Your task to perform on an android device: Open Google Maps and go to "Timeline" Image 0: 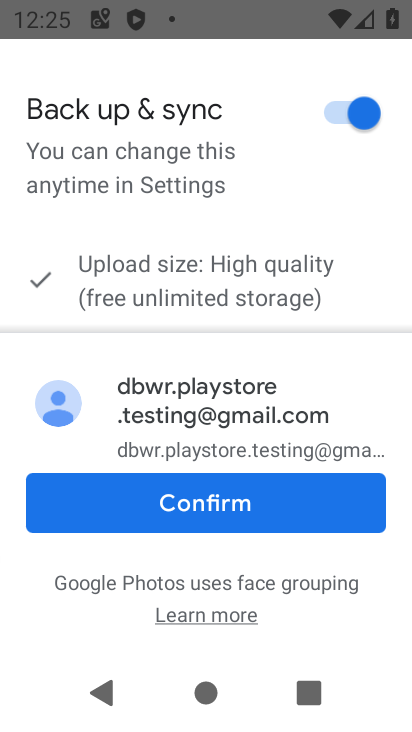
Step 0: press home button
Your task to perform on an android device: Open Google Maps and go to "Timeline" Image 1: 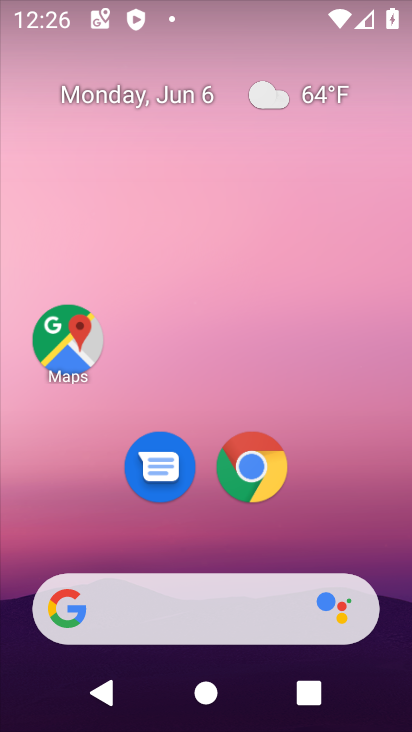
Step 1: click (67, 342)
Your task to perform on an android device: Open Google Maps and go to "Timeline" Image 2: 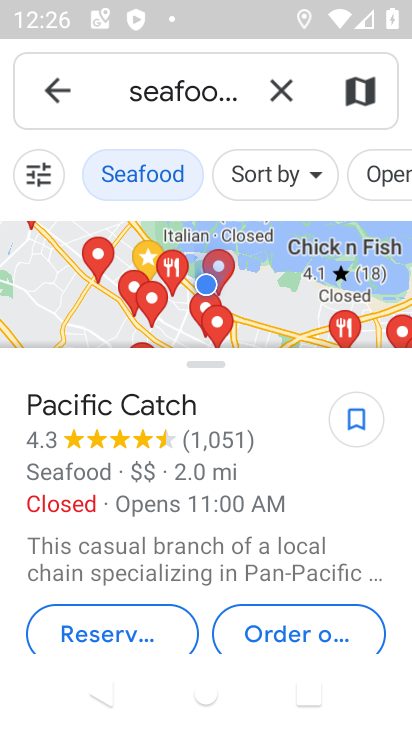
Step 2: click (275, 93)
Your task to perform on an android device: Open Google Maps and go to "Timeline" Image 3: 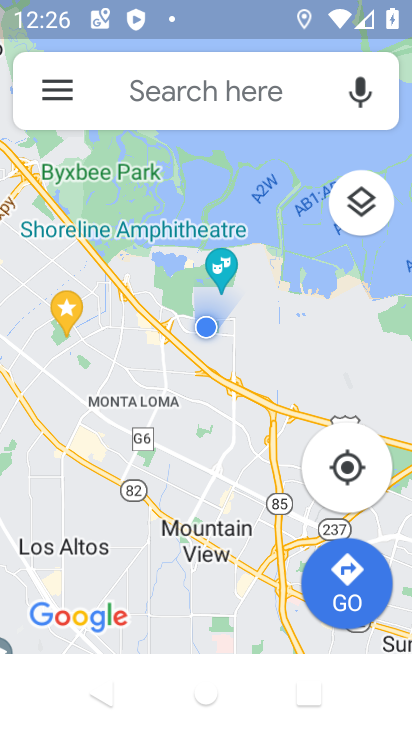
Step 3: click (55, 89)
Your task to perform on an android device: Open Google Maps and go to "Timeline" Image 4: 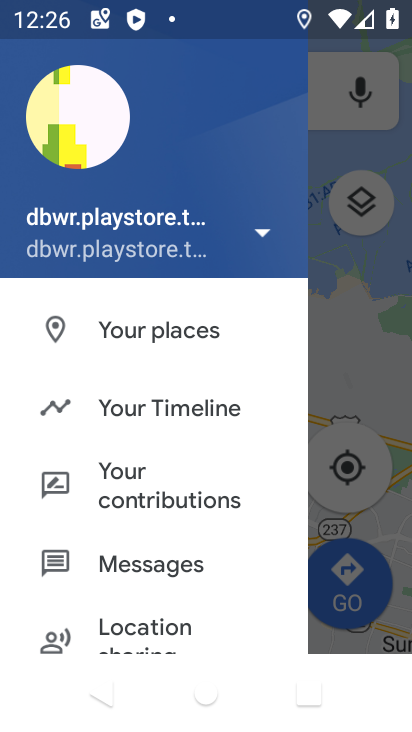
Step 4: click (177, 419)
Your task to perform on an android device: Open Google Maps and go to "Timeline" Image 5: 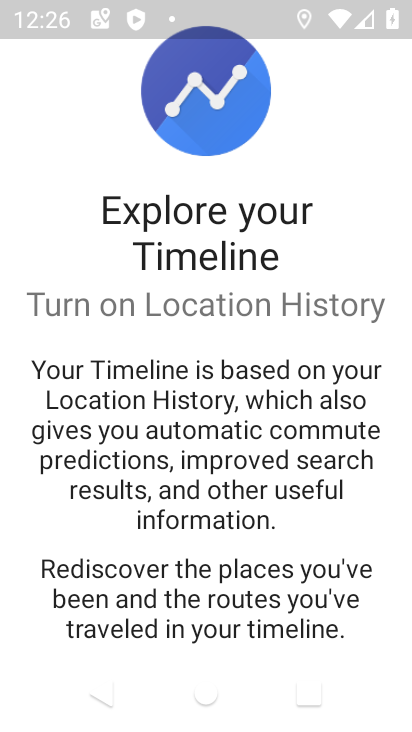
Step 5: drag from (244, 630) to (370, 347)
Your task to perform on an android device: Open Google Maps and go to "Timeline" Image 6: 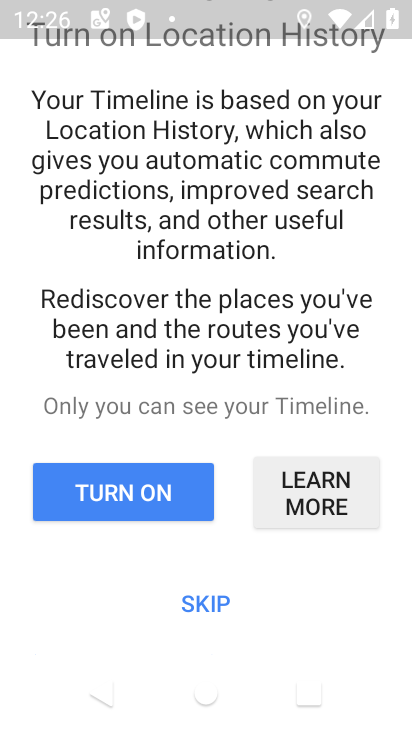
Step 6: click (216, 591)
Your task to perform on an android device: Open Google Maps and go to "Timeline" Image 7: 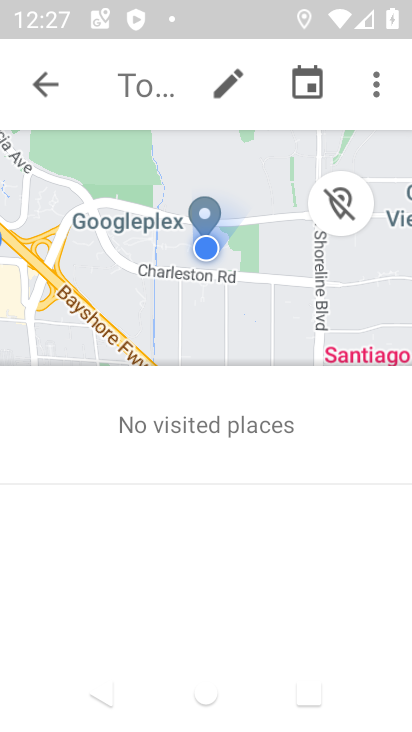
Step 7: task complete